Your task to perform on an android device: change the clock display to digital Image 0: 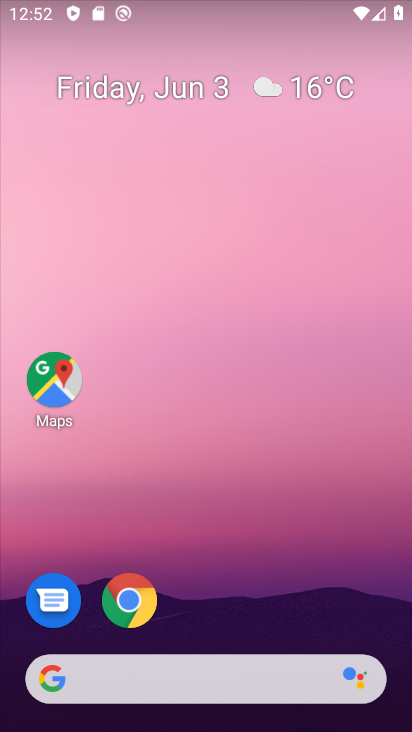
Step 0: drag from (216, 504) to (186, 31)
Your task to perform on an android device: change the clock display to digital Image 1: 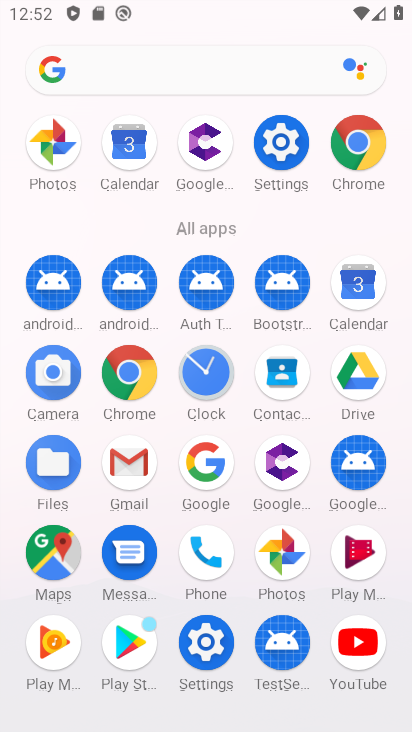
Step 1: click (206, 372)
Your task to perform on an android device: change the clock display to digital Image 2: 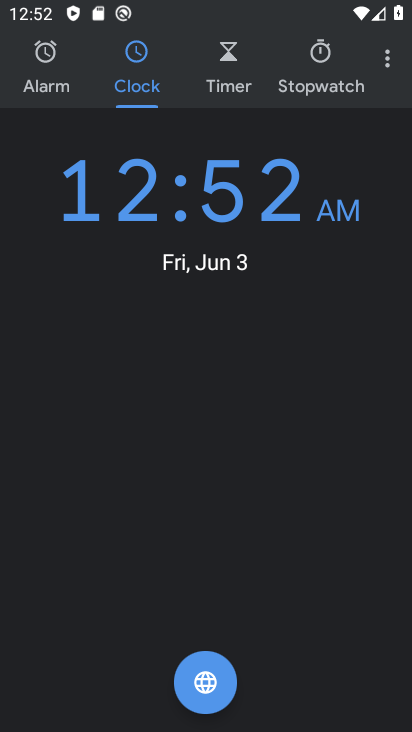
Step 2: task complete